Your task to perform on an android device: turn off data saver in the chrome app Image 0: 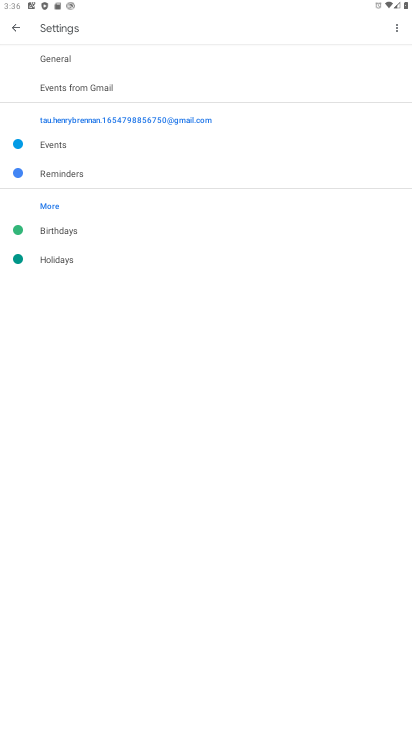
Step 0: press home button
Your task to perform on an android device: turn off data saver in the chrome app Image 1: 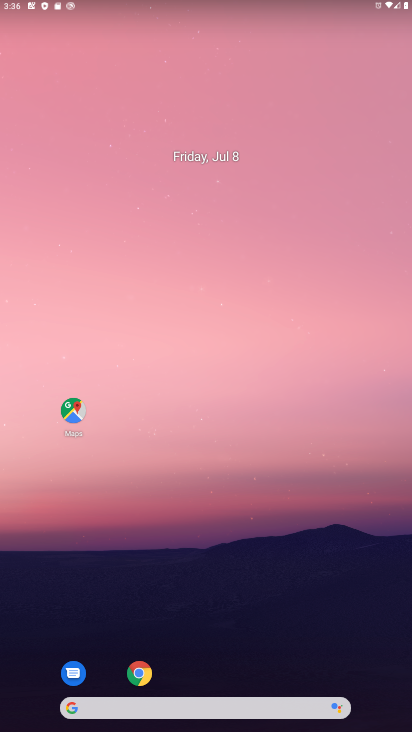
Step 1: click (137, 672)
Your task to perform on an android device: turn off data saver in the chrome app Image 2: 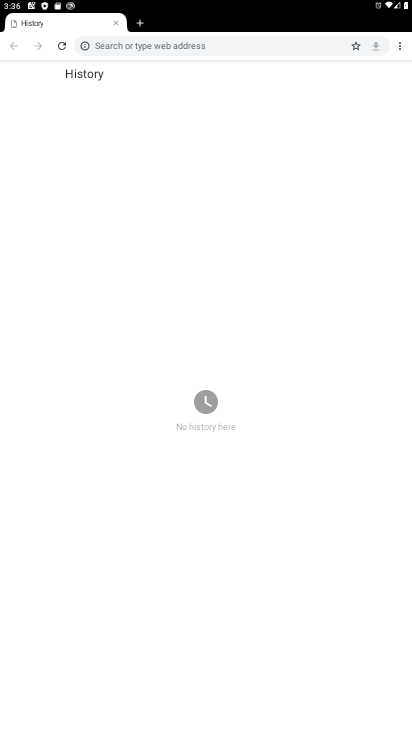
Step 2: click (397, 44)
Your task to perform on an android device: turn off data saver in the chrome app Image 3: 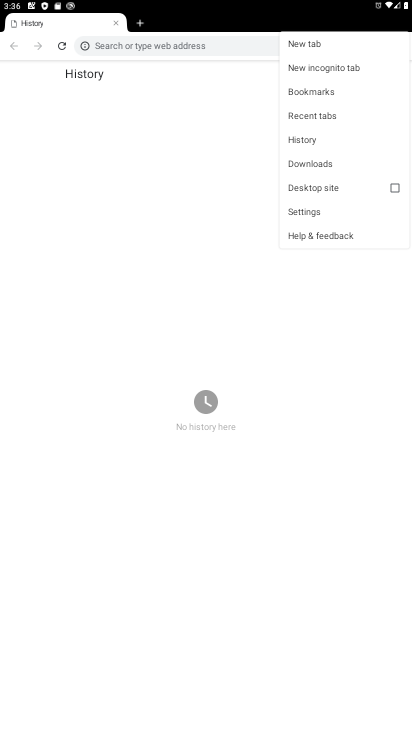
Step 3: click (318, 213)
Your task to perform on an android device: turn off data saver in the chrome app Image 4: 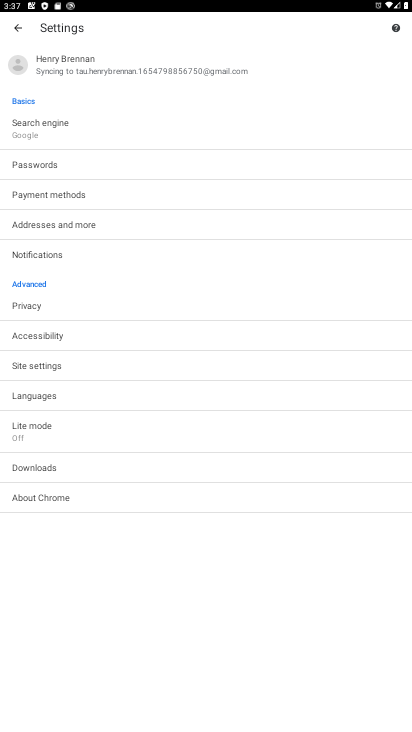
Step 4: click (74, 434)
Your task to perform on an android device: turn off data saver in the chrome app Image 5: 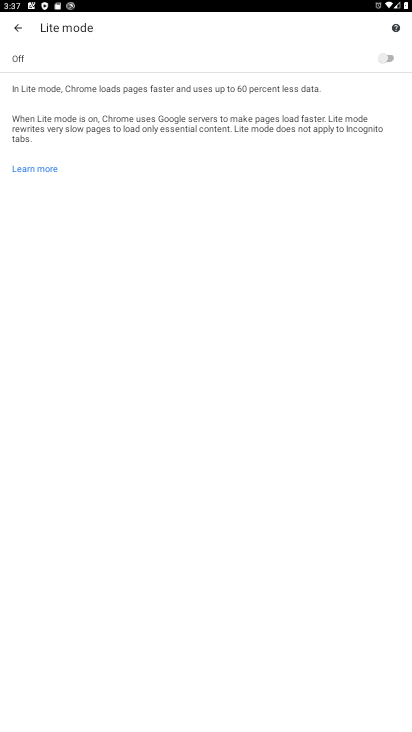
Step 5: task complete